Your task to perform on an android device: star an email in the gmail app Image 0: 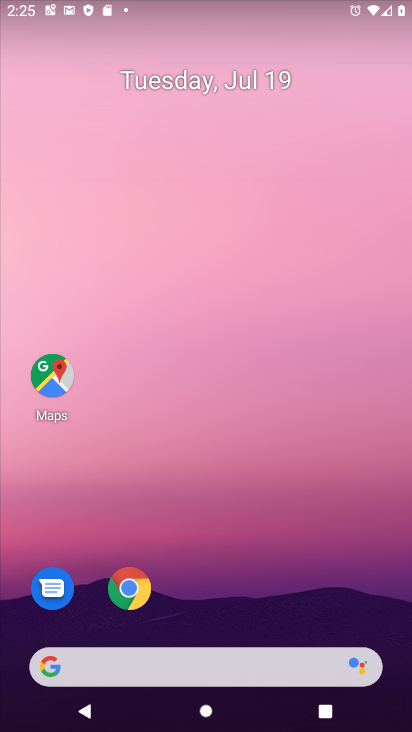
Step 0: drag from (375, 612) to (247, 96)
Your task to perform on an android device: star an email in the gmail app Image 1: 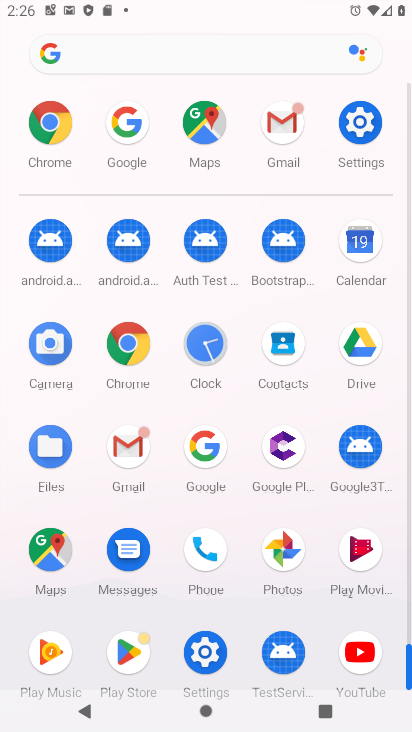
Step 1: click (128, 461)
Your task to perform on an android device: star an email in the gmail app Image 2: 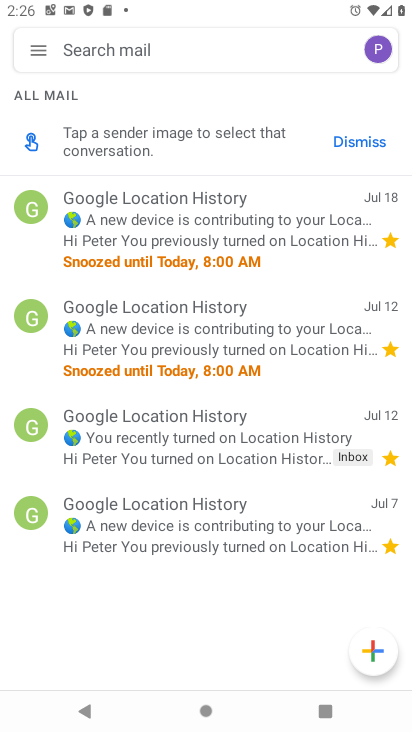
Step 2: task complete